Your task to perform on an android device: change the clock display to digital Image 0: 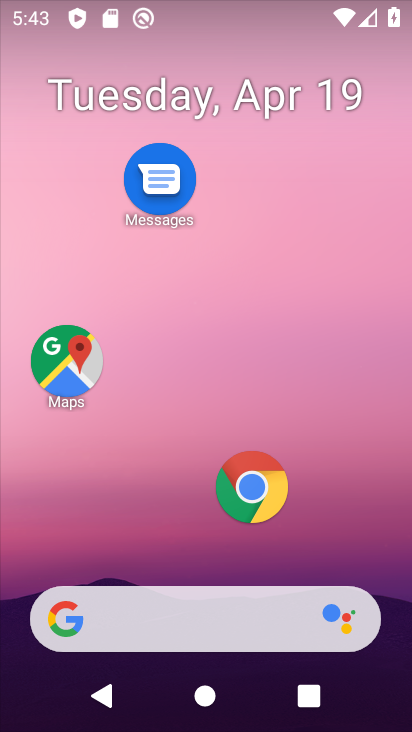
Step 0: drag from (296, 550) to (335, 22)
Your task to perform on an android device: change the clock display to digital Image 1: 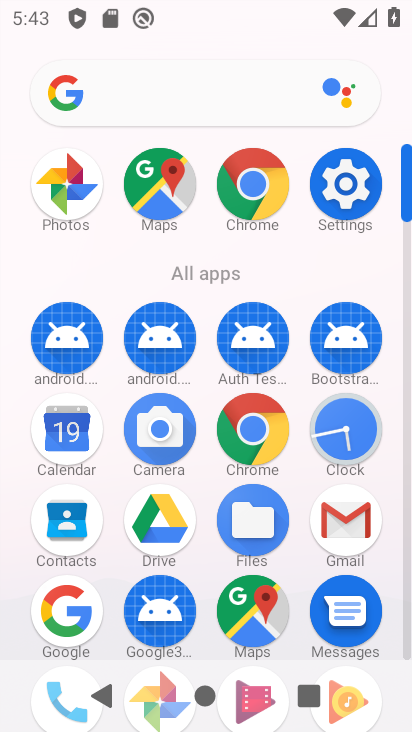
Step 1: click (344, 420)
Your task to perform on an android device: change the clock display to digital Image 2: 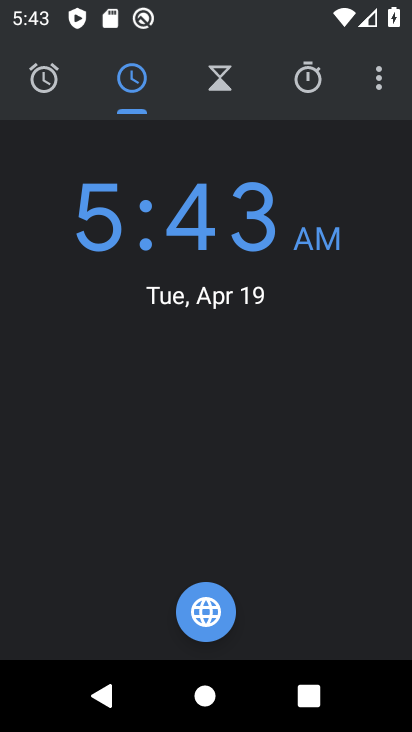
Step 2: click (382, 67)
Your task to perform on an android device: change the clock display to digital Image 3: 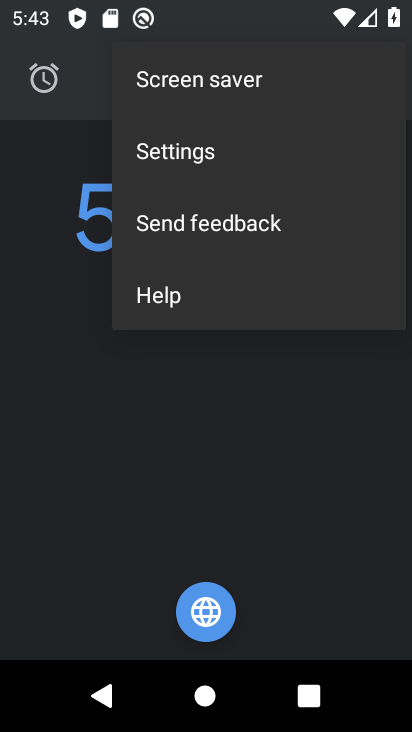
Step 3: click (226, 159)
Your task to perform on an android device: change the clock display to digital Image 4: 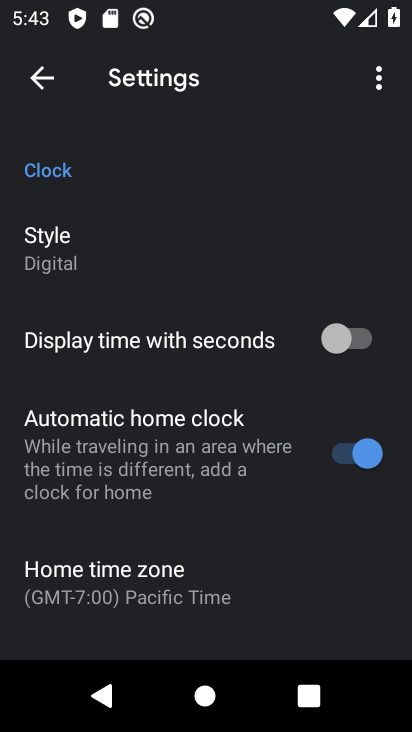
Step 4: click (86, 249)
Your task to perform on an android device: change the clock display to digital Image 5: 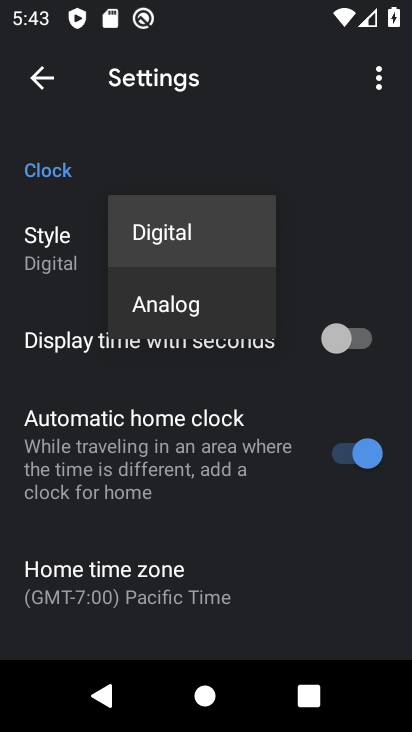
Step 5: click (200, 236)
Your task to perform on an android device: change the clock display to digital Image 6: 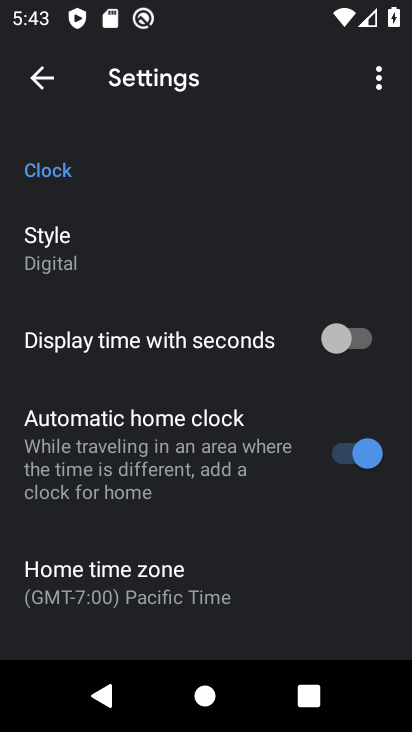
Step 6: task complete